Your task to perform on an android device: Go to CNN.com Image 0: 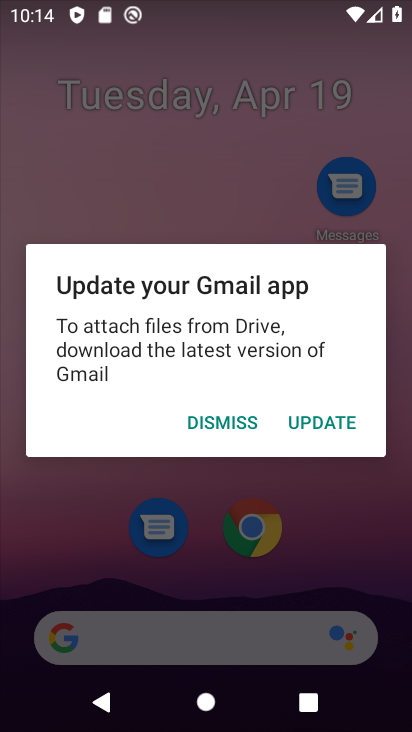
Step 0: press home button
Your task to perform on an android device: Go to CNN.com Image 1: 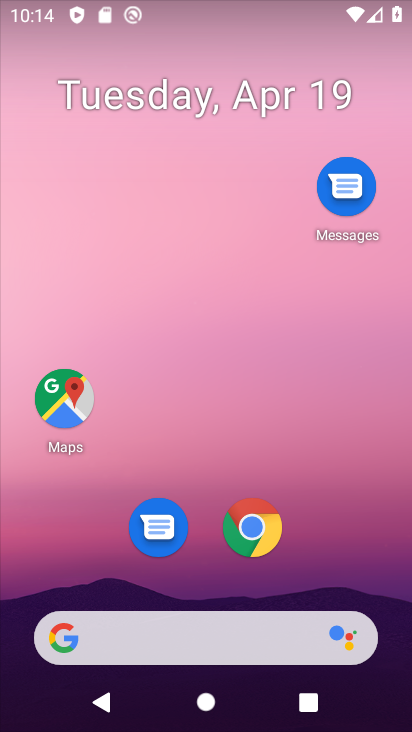
Step 1: click (248, 538)
Your task to perform on an android device: Go to CNN.com Image 2: 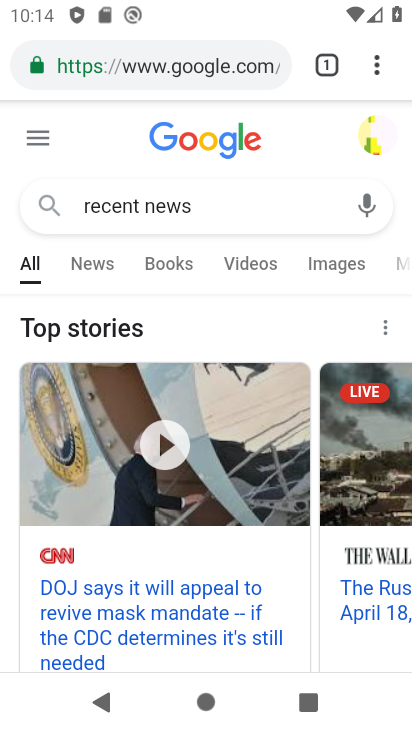
Step 2: click (216, 206)
Your task to perform on an android device: Go to CNN.com Image 3: 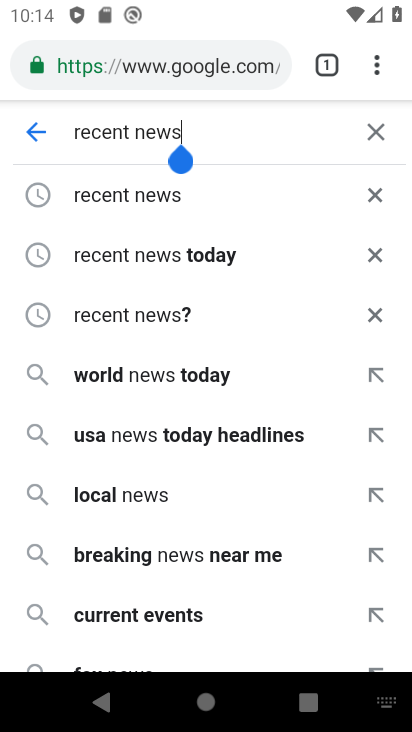
Step 3: click (206, 70)
Your task to perform on an android device: Go to CNN.com Image 4: 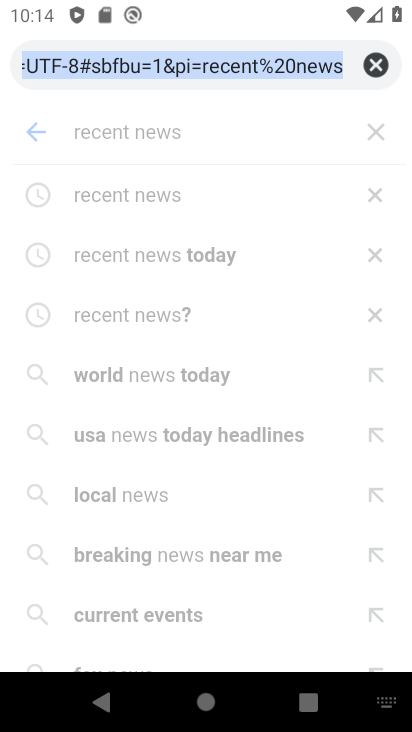
Step 4: type "CNN.com"
Your task to perform on an android device: Go to CNN.com Image 5: 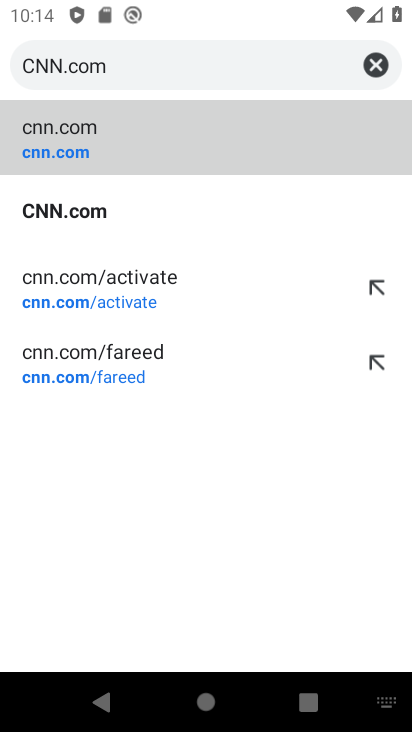
Step 5: click (72, 157)
Your task to perform on an android device: Go to CNN.com Image 6: 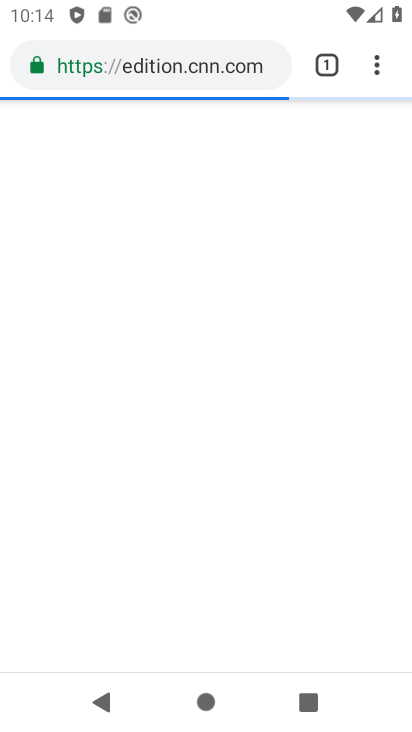
Step 6: task complete